Your task to perform on an android device: Go to Google maps Image 0: 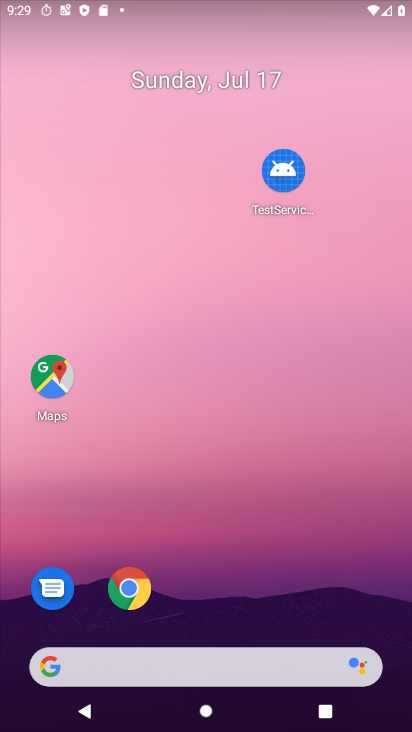
Step 0: drag from (211, 568) to (261, 182)
Your task to perform on an android device: Go to Google maps Image 1: 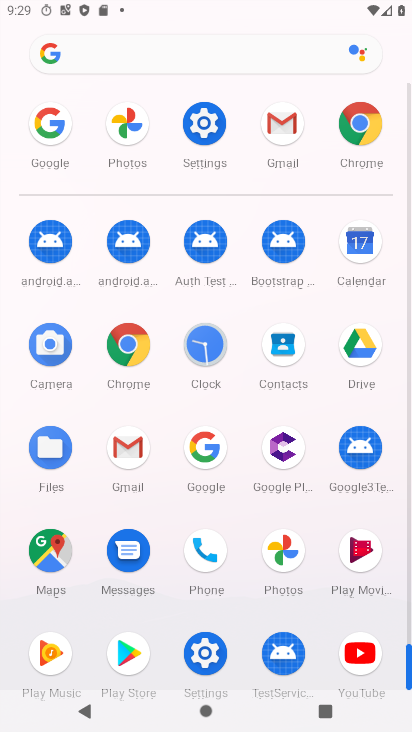
Step 1: click (62, 560)
Your task to perform on an android device: Go to Google maps Image 2: 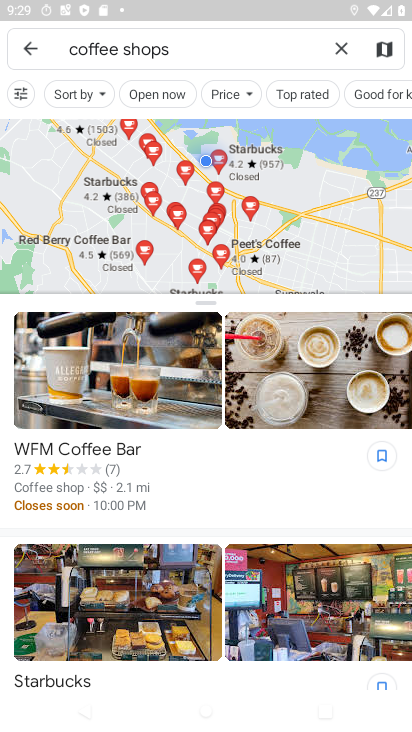
Step 2: task complete